Your task to perform on an android device: Go to Yahoo.com Image 0: 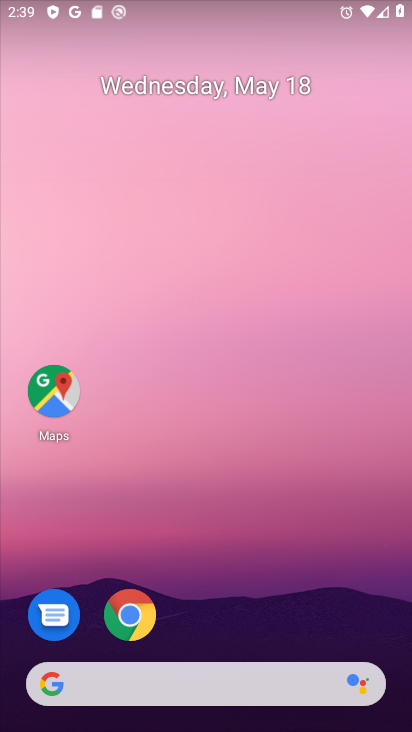
Step 0: click (130, 612)
Your task to perform on an android device: Go to Yahoo.com Image 1: 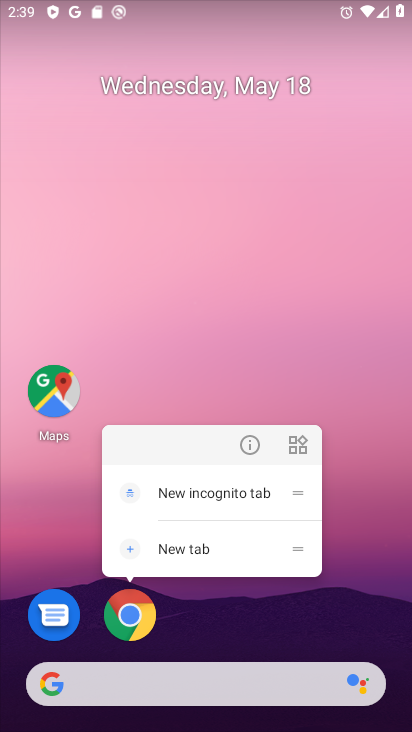
Step 1: click (240, 447)
Your task to perform on an android device: Go to Yahoo.com Image 2: 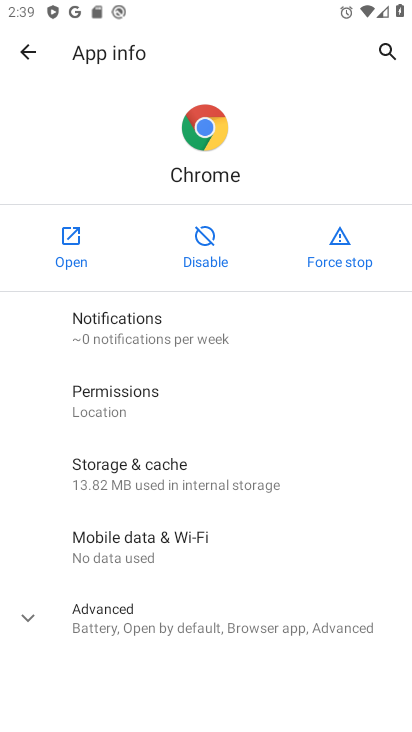
Step 2: click (73, 255)
Your task to perform on an android device: Go to Yahoo.com Image 3: 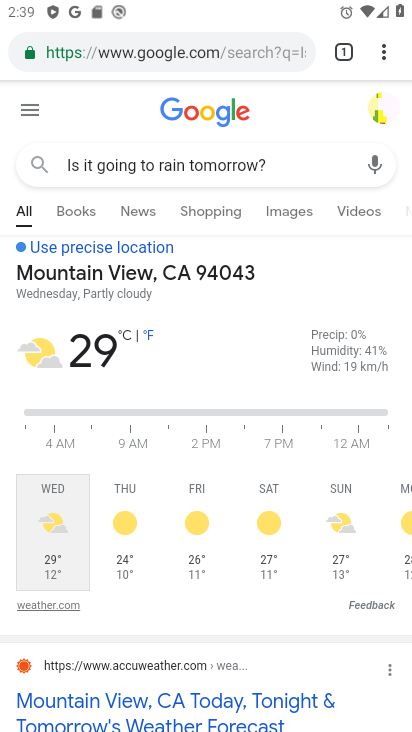
Step 3: click (187, 49)
Your task to perform on an android device: Go to Yahoo.com Image 4: 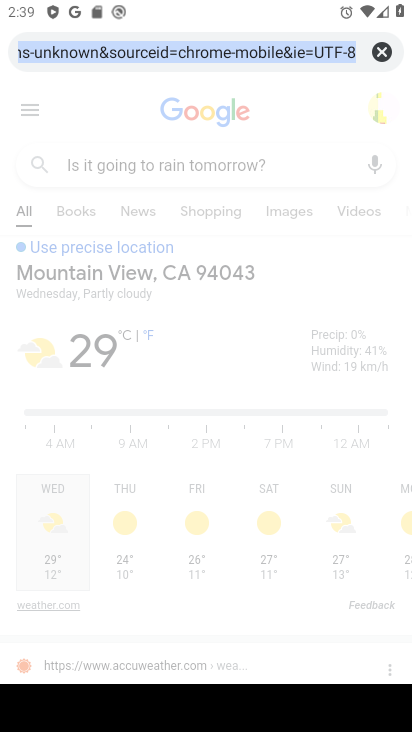
Step 4: type "Yahoo.com"
Your task to perform on an android device: Go to Yahoo.com Image 5: 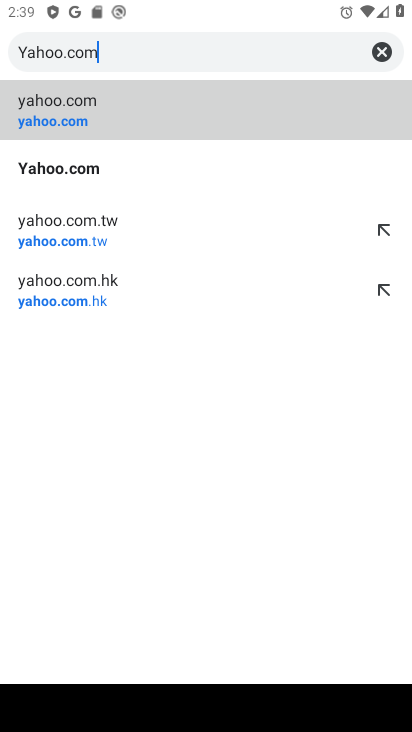
Step 5: click (103, 114)
Your task to perform on an android device: Go to Yahoo.com Image 6: 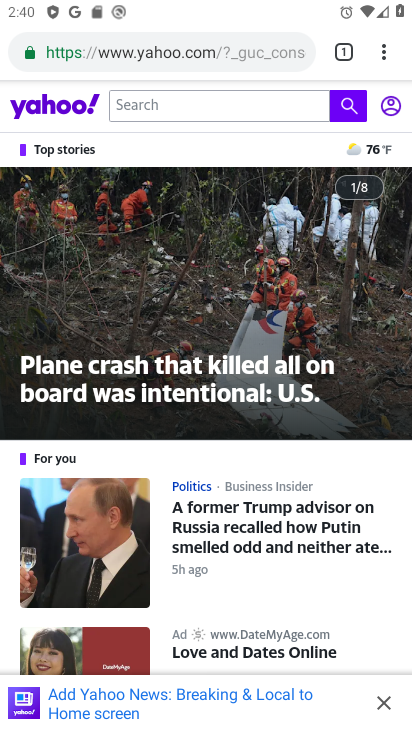
Step 6: task complete